Your task to perform on an android device: Clear the cart on costco.com. Add "corsair k70" to the cart on costco.com Image 0: 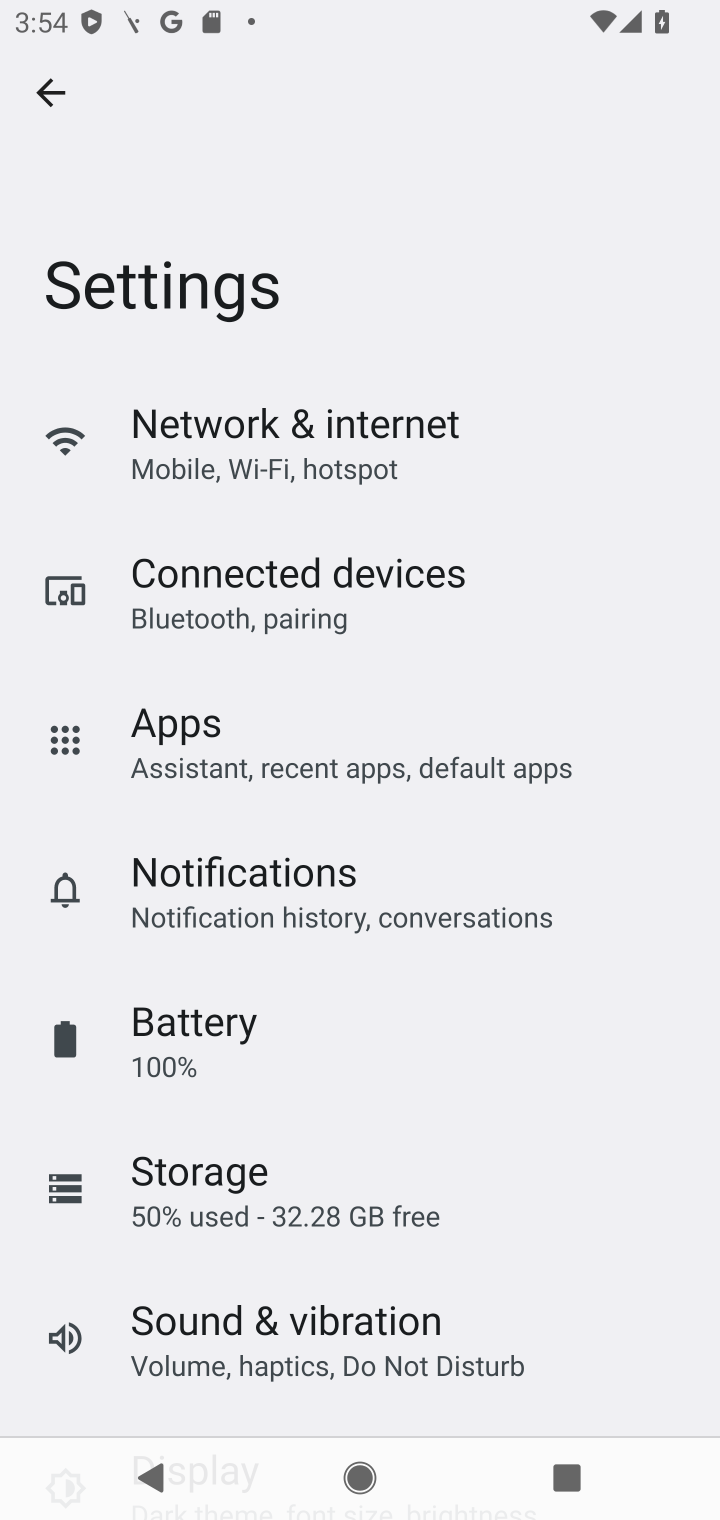
Step 0: press home button
Your task to perform on an android device: Clear the cart on costco.com. Add "corsair k70" to the cart on costco.com Image 1: 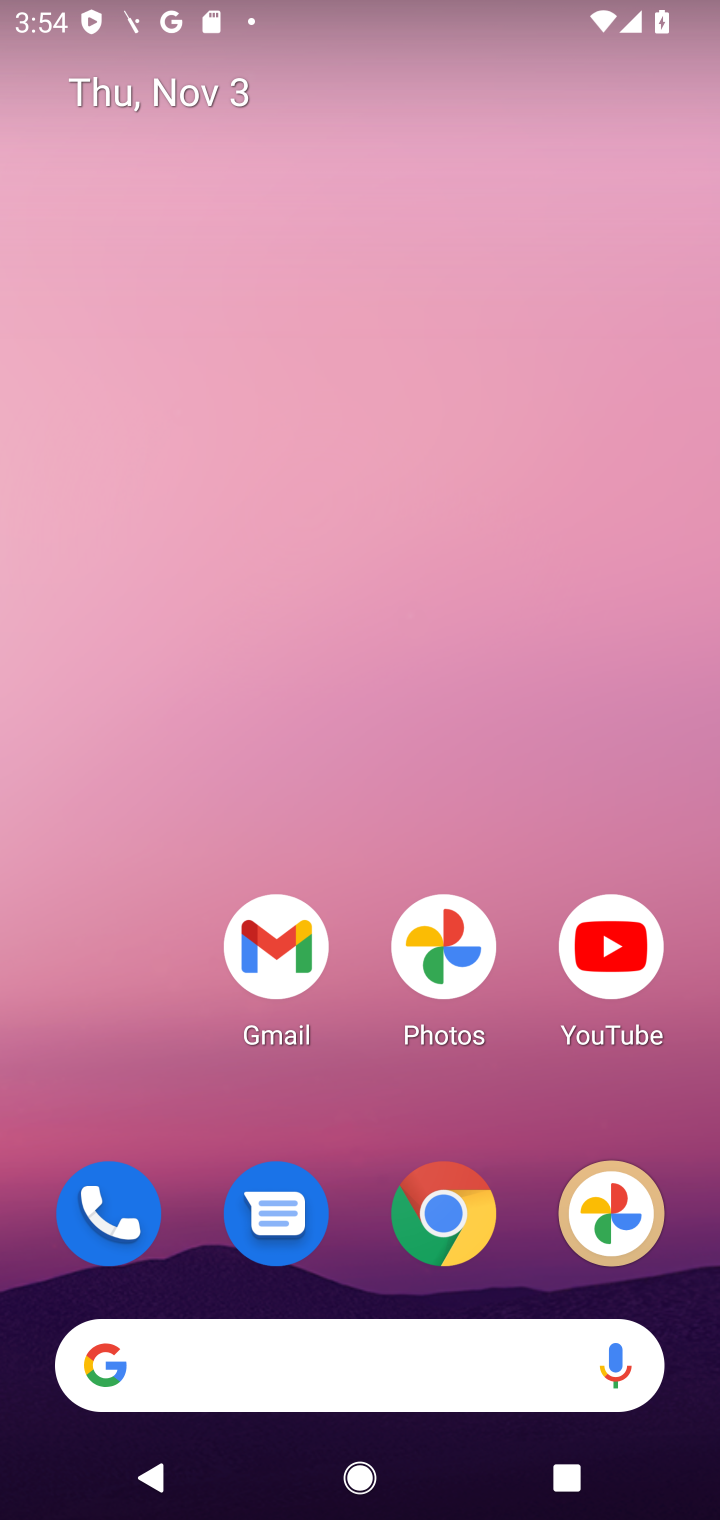
Step 1: click (439, 1217)
Your task to perform on an android device: Clear the cart on costco.com. Add "corsair k70" to the cart on costco.com Image 2: 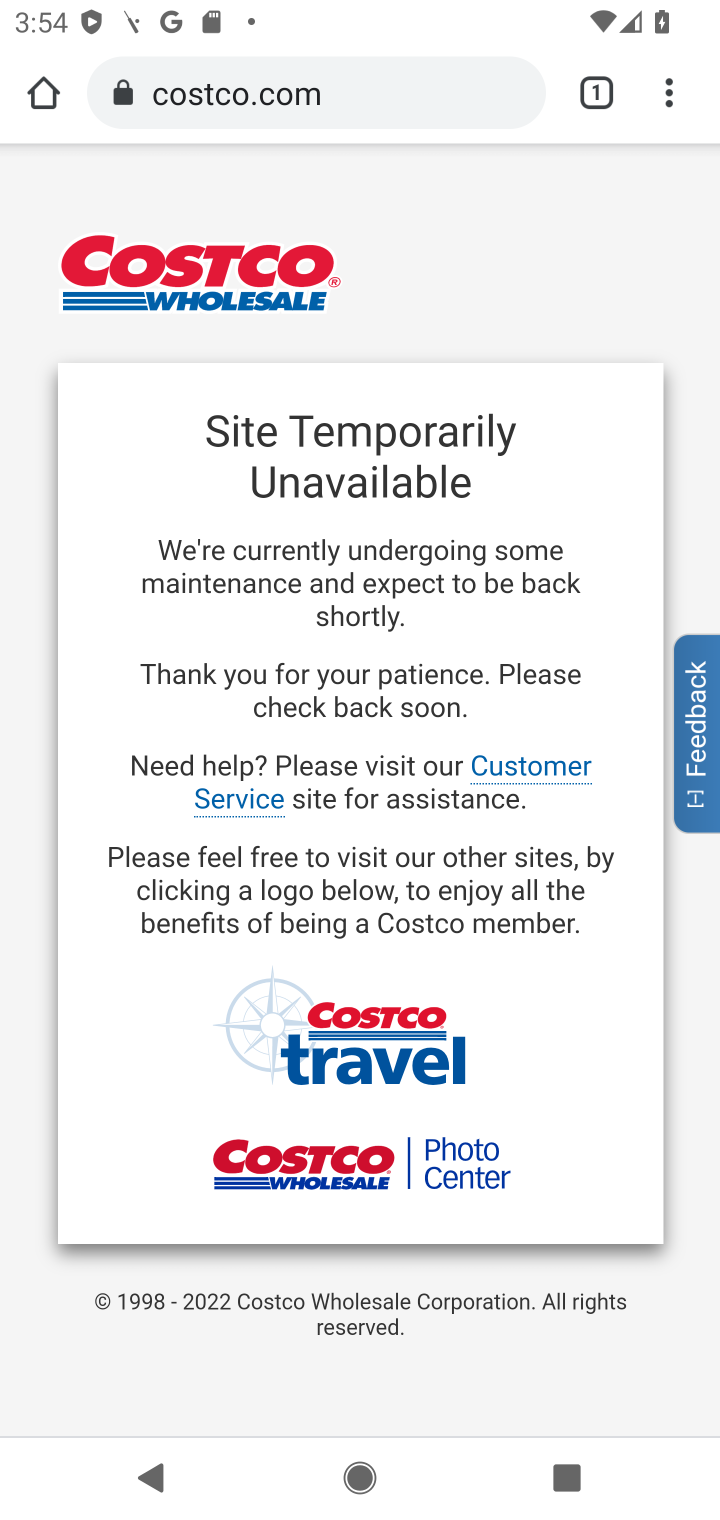
Step 2: click (349, 105)
Your task to perform on an android device: Clear the cart on costco.com. Add "corsair k70" to the cart on costco.com Image 3: 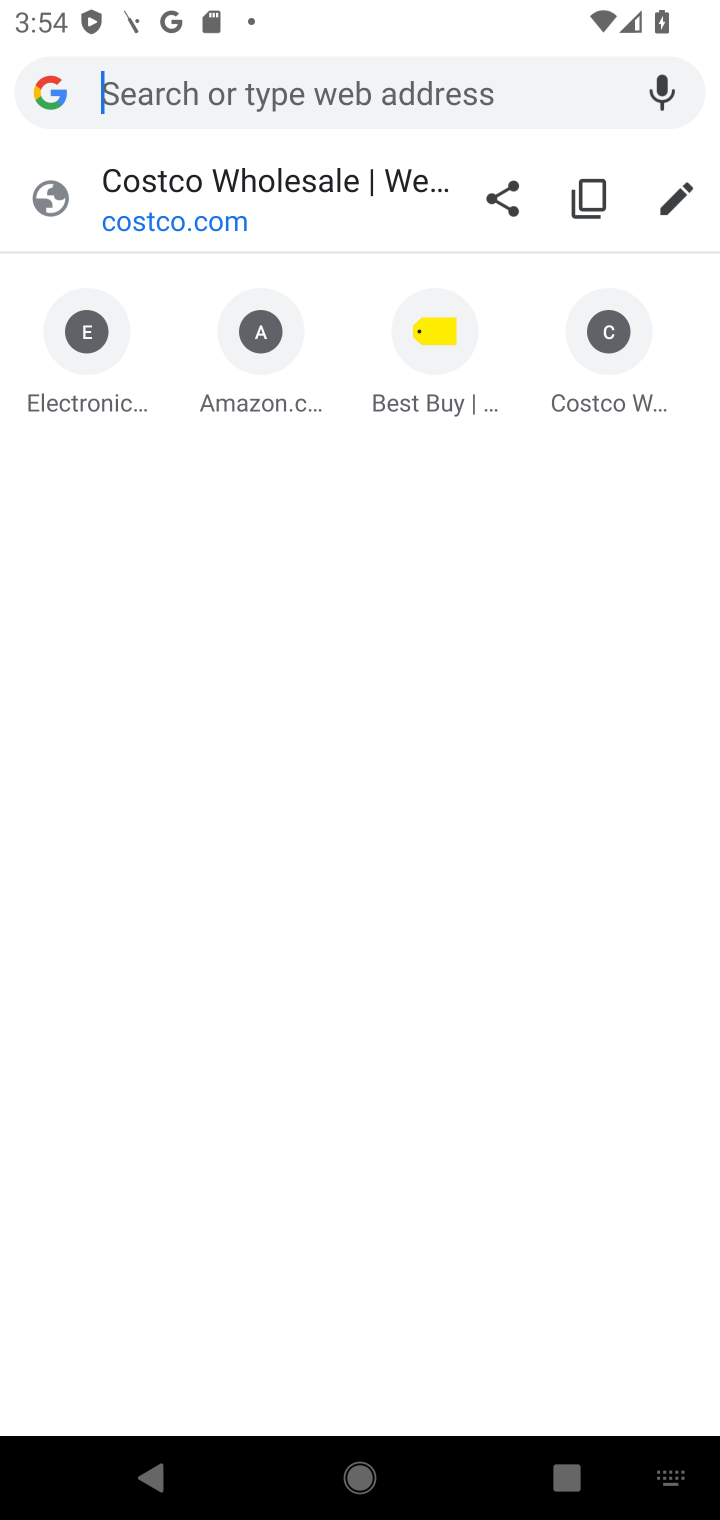
Step 3: click (208, 216)
Your task to perform on an android device: Clear the cart on costco.com. Add "corsair k70" to the cart on costco.com Image 4: 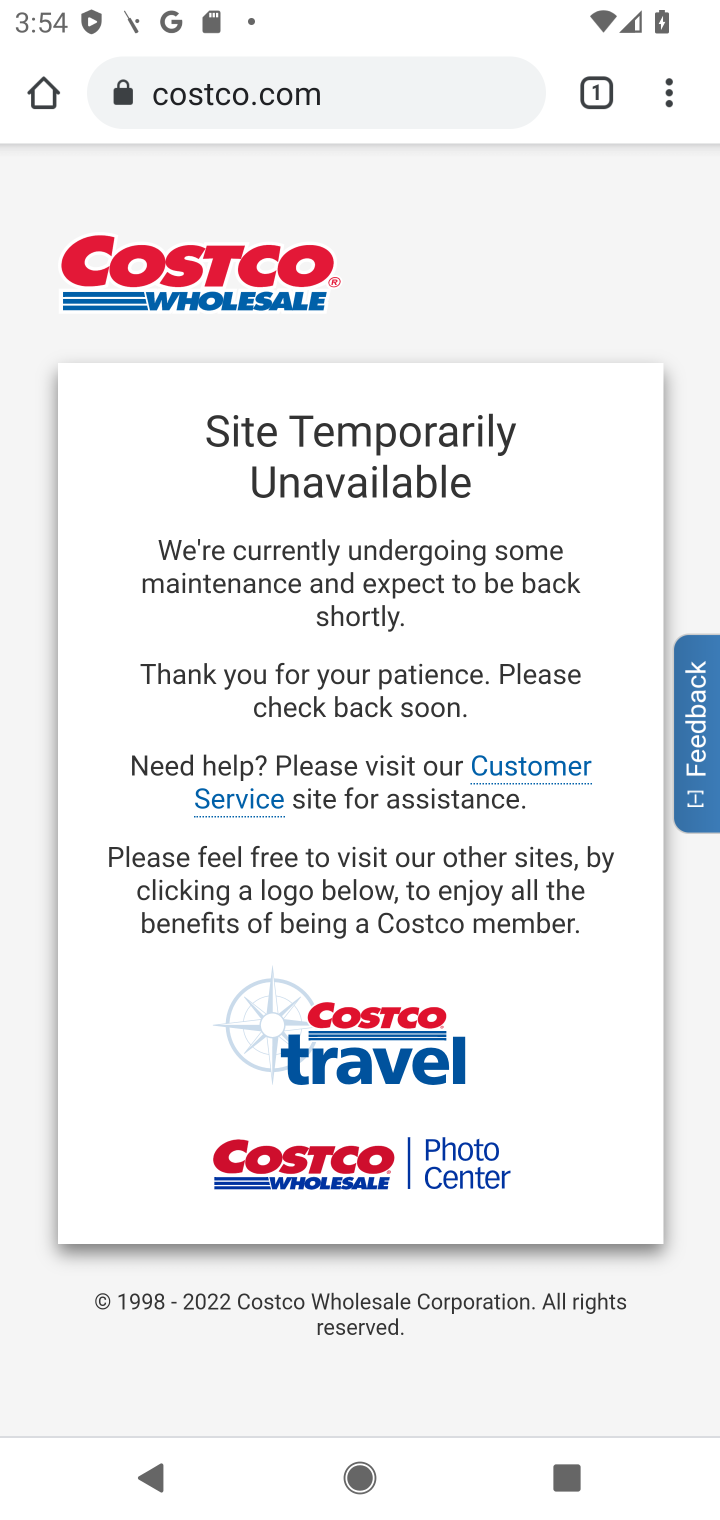
Step 4: click (673, 512)
Your task to perform on an android device: Clear the cart on costco.com. Add "corsair k70" to the cart on costco.com Image 5: 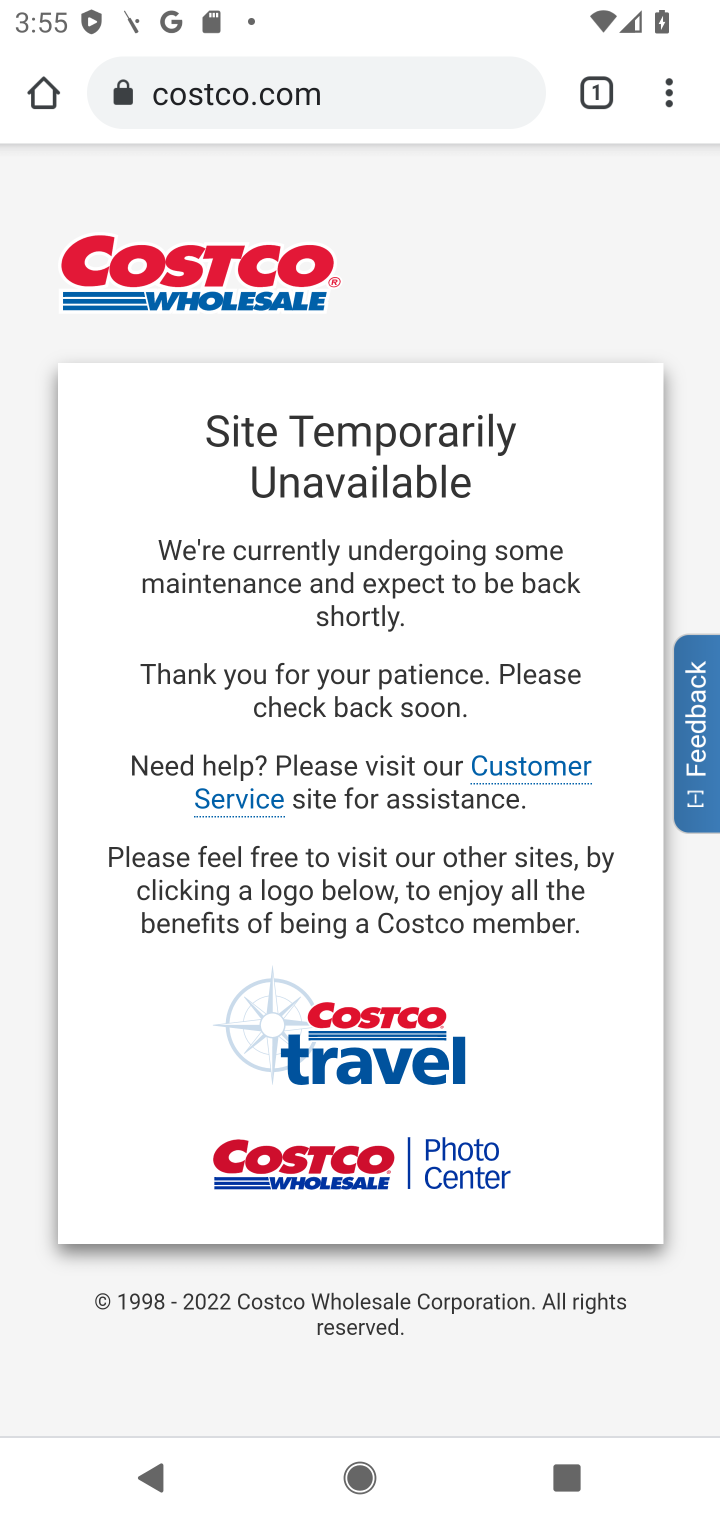
Step 5: task complete